Your task to perform on an android device: Go to internet settings Image 0: 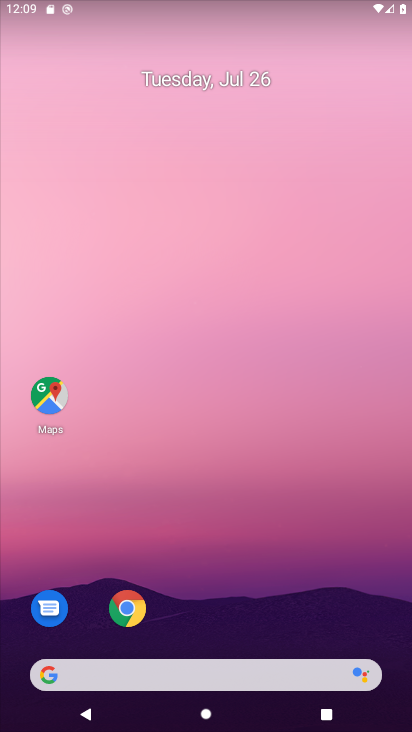
Step 0: drag from (207, 643) to (233, 76)
Your task to perform on an android device: Go to internet settings Image 1: 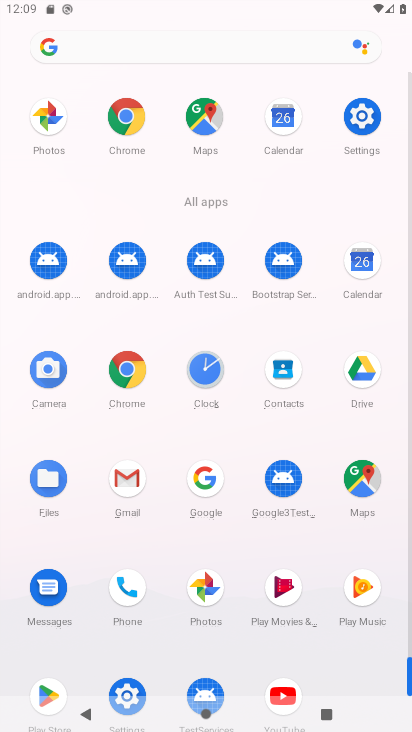
Step 1: drag from (132, 648) to (139, 401)
Your task to perform on an android device: Go to internet settings Image 2: 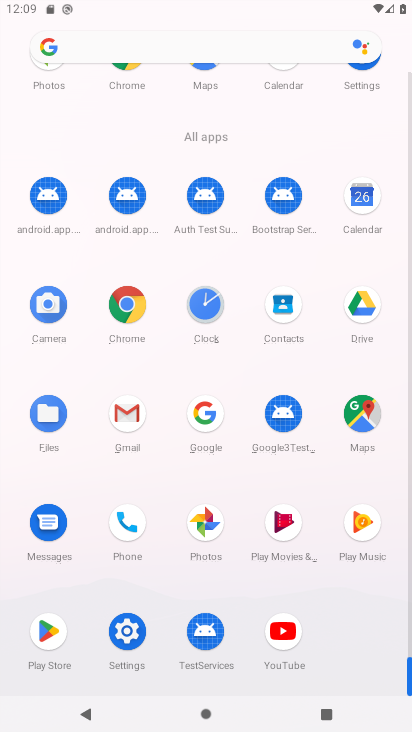
Step 2: click (130, 639)
Your task to perform on an android device: Go to internet settings Image 3: 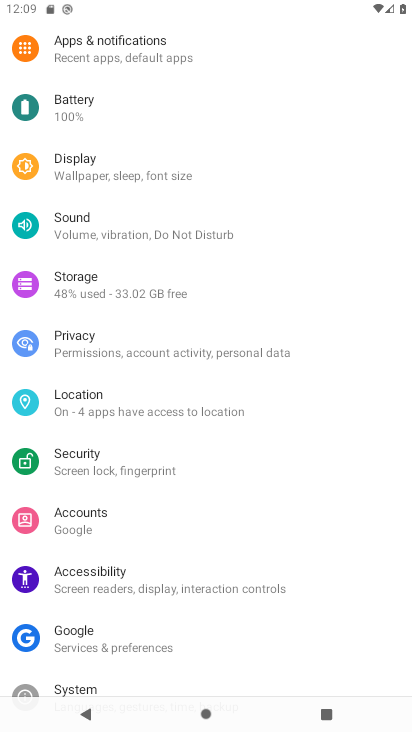
Step 3: drag from (158, 230) to (153, 549)
Your task to perform on an android device: Go to internet settings Image 4: 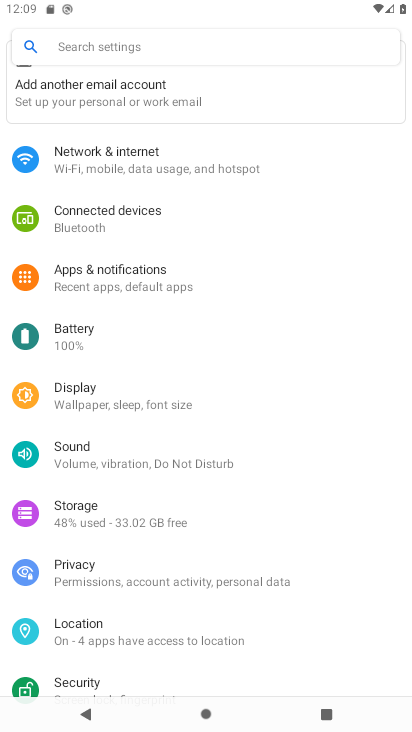
Step 4: click (200, 169)
Your task to perform on an android device: Go to internet settings Image 5: 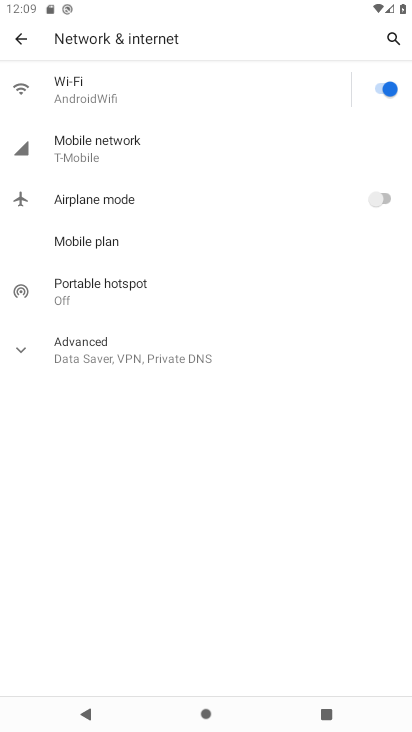
Step 5: click (144, 158)
Your task to perform on an android device: Go to internet settings Image 6: 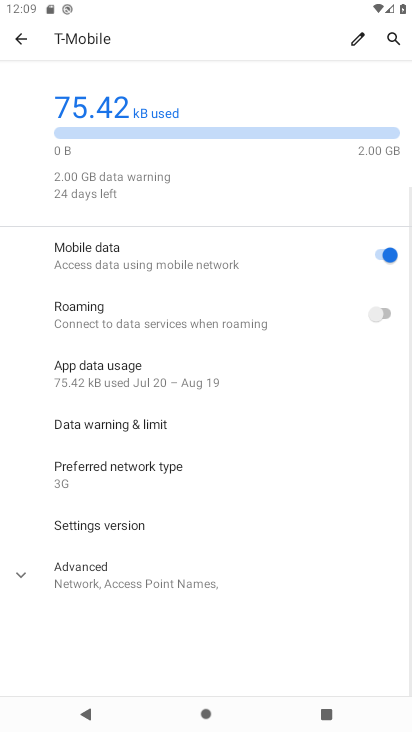
Step 6: task complete